Your task to perform on an android device: See recent photos Image 0: 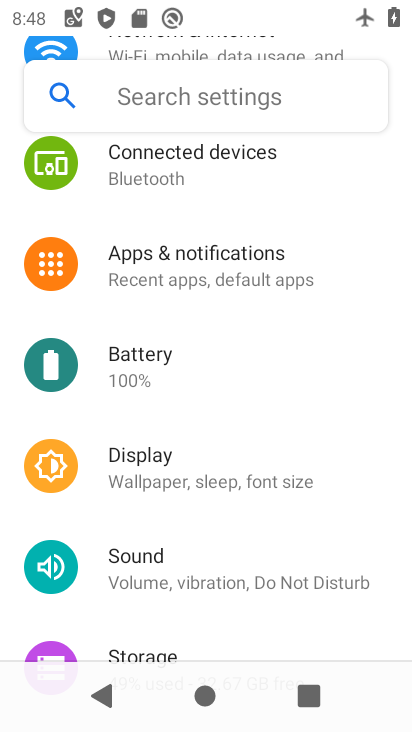
Step 0: press home button
Your task to perform on an android device: See recent photos Image 1: 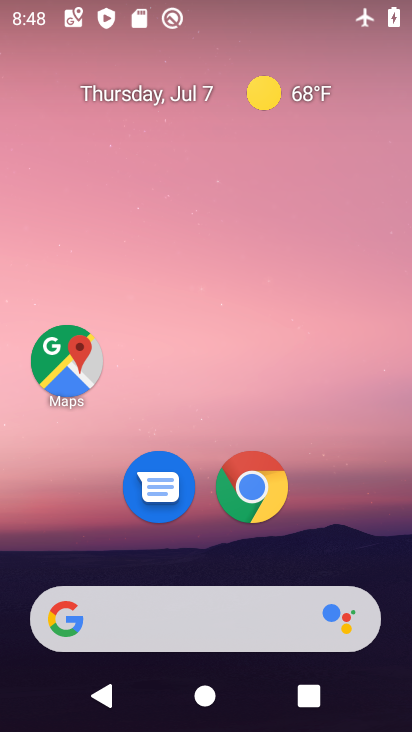
Step 1: drag from (236, 567) to (152, 17)
Your task to perform on an android device: See recent photos Image 2: 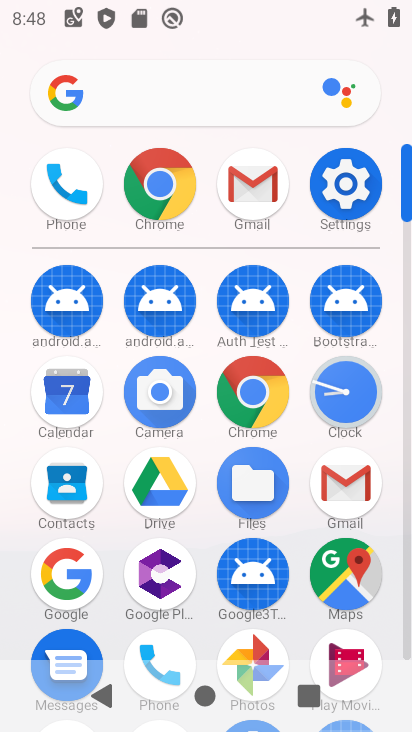
Step 2: click (254, 626)
Your task to perform on an android device: See recent photos Image 3: 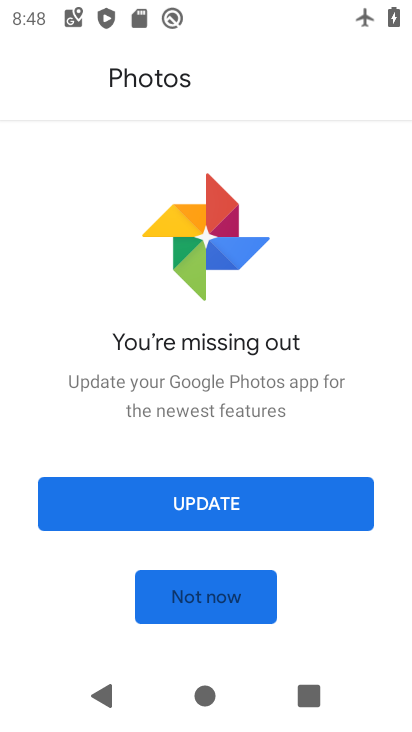
Step 3: click (217, 605)
Your task to perform on an android device: See recent photos Image 4: 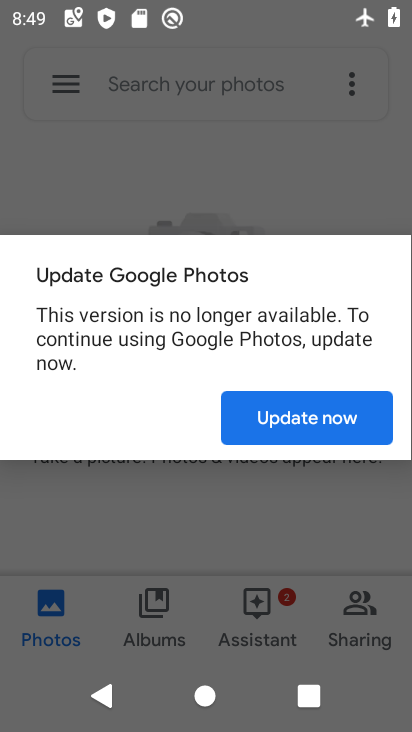
Step 4: click (316, 431)
Your task to perform on an android device: See recent photos Image 5: 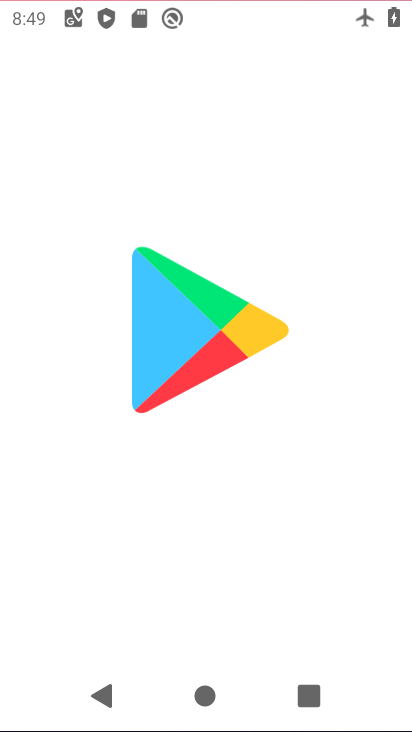
Step 5: drag from (251, 264) to (293, 407)
Your task to perform on an android device: See recent photos Image 6: 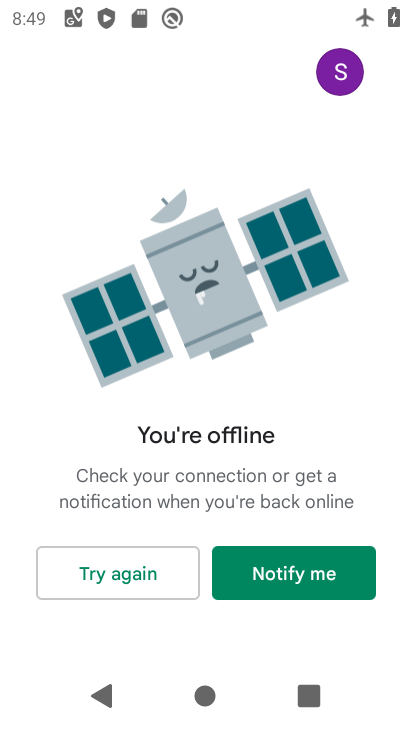
Step 6: click (171, 580)
Your task to perform on an android device: See recent photos Image 7: 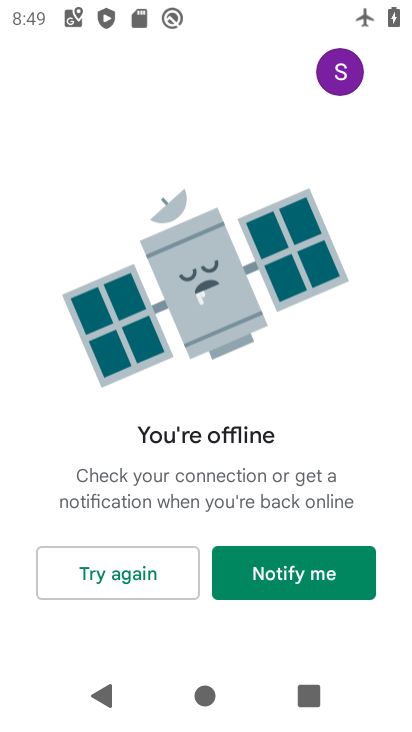
Step 7: task complete